Your task to perform on an android device: Go to notification settings Image 0: 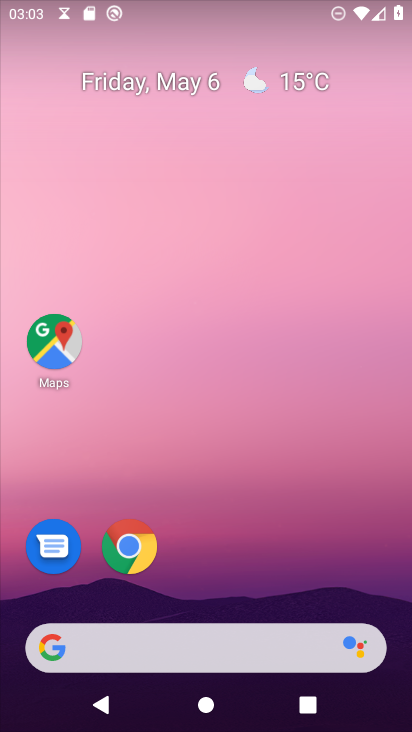
Step 0: drag from (258, 568) to (247, 65)
Your task to perform on an android device: Go to notification settings Image 1: 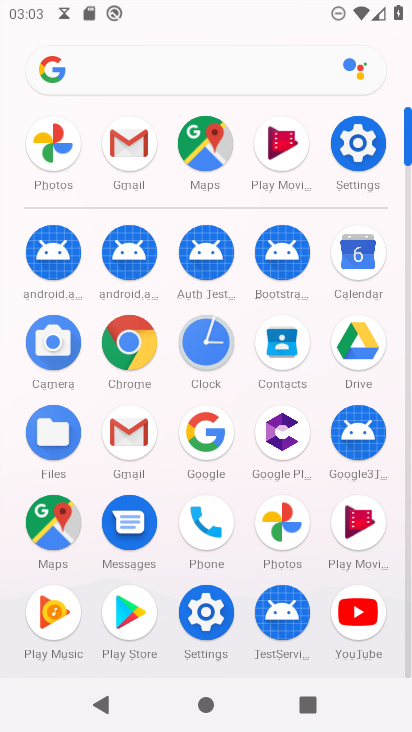
Step 1: click (356, 151)
Your task to perform on an android device: Go to notification settings Image 2: 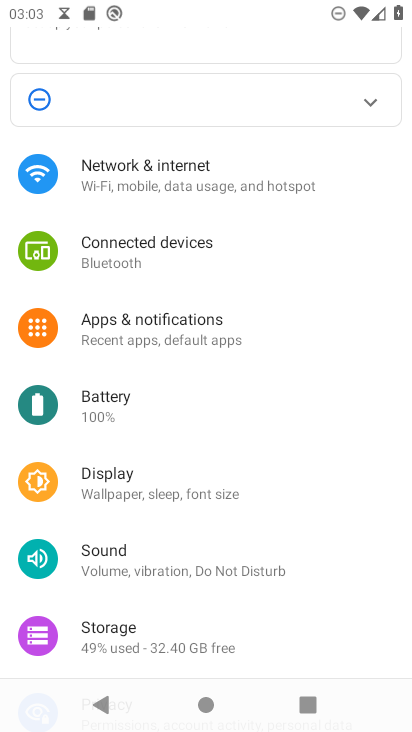
Step 2: click (168, 324)
Your task to perform on an android device: Go to notification settings Image 3: 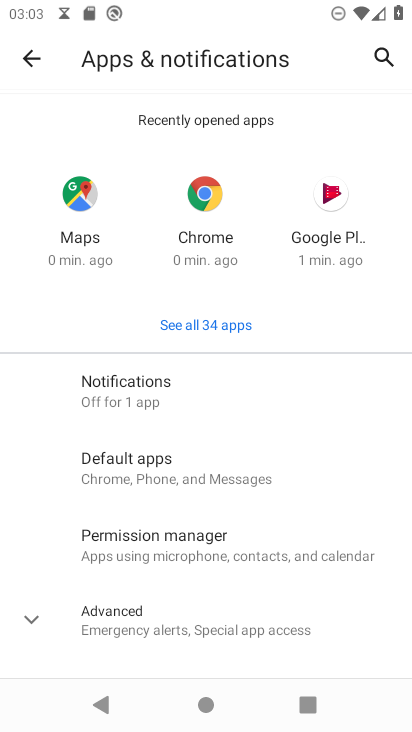
Step 3: task complete